Your task to perform on an android device: Open Maps and search for coffee Image 0: 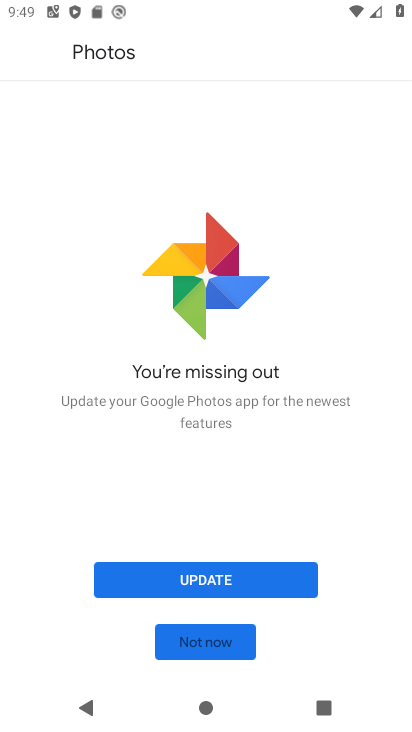
Step 0: press home button
Your task to perform on an android device: Open Maps and search for coffee Image 1: 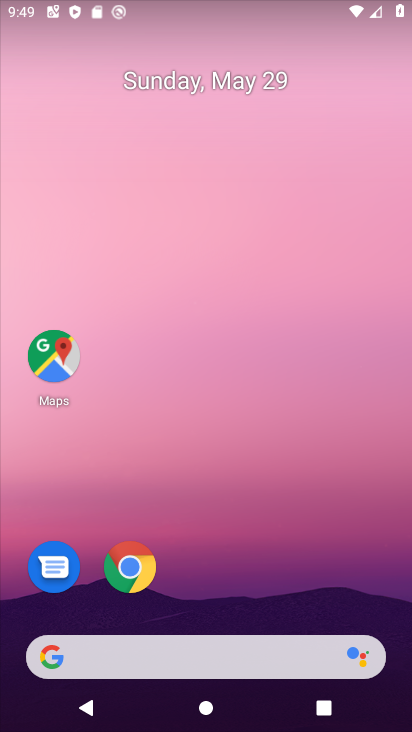
Step 1: drag from (385, 612) to (368, 532)
Your task to perform on an android device: Open Maps and search for coffee Image 2: 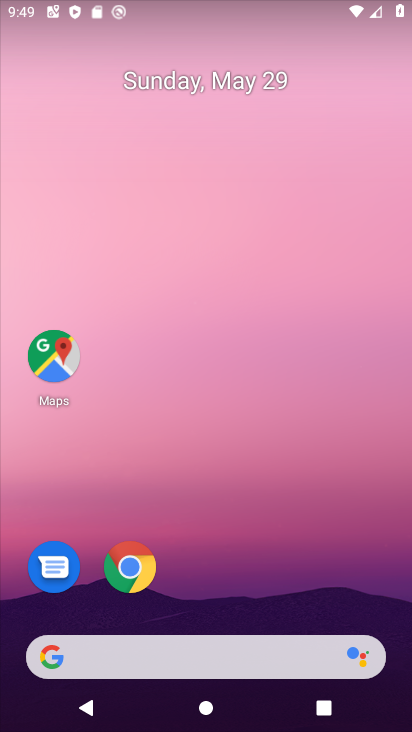
Step 2: click (58, 356)
Your task to perform on an android device: Open Maps and search for coffee Image 3: 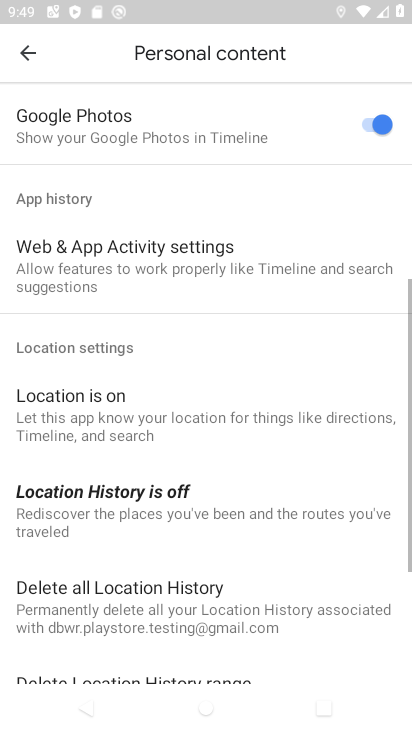
Step 3: press back button
Your task to perform on an android device: Open Maps and search for coffee Image 4: 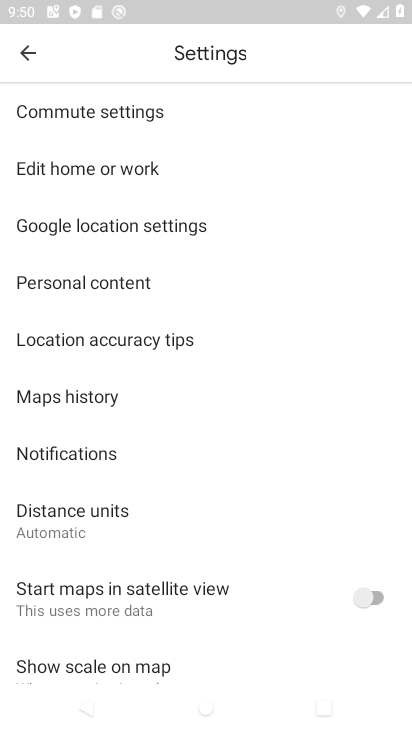
Step 4: press back button
Your task to perform on an android device: Open Maps and search for coffee Image 5: 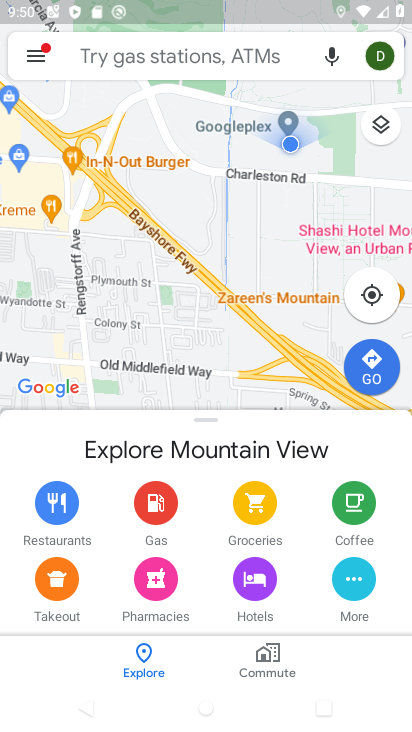
Step 5: click (136, 55)
Your task to perform on an android device: Open Maps and search for coffee Image 6: 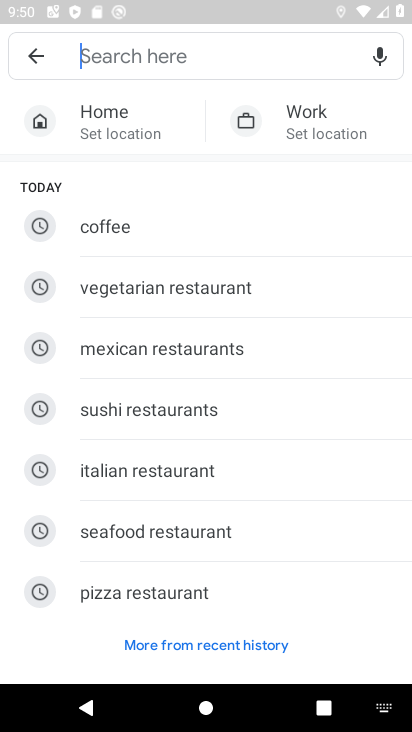
Step 6: type "coffee"
Your task to perform on an android device: Open Maps and search for coffee Image 7: 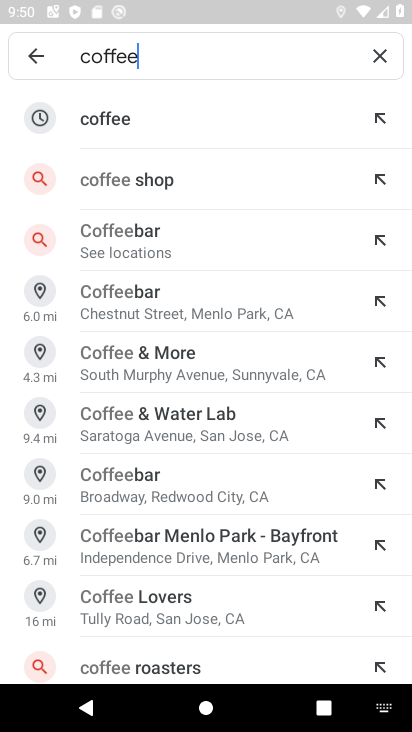
Step 7: click (104, 109)
Your task to perform on an android device: Open Maps and search for coffee Image 8: 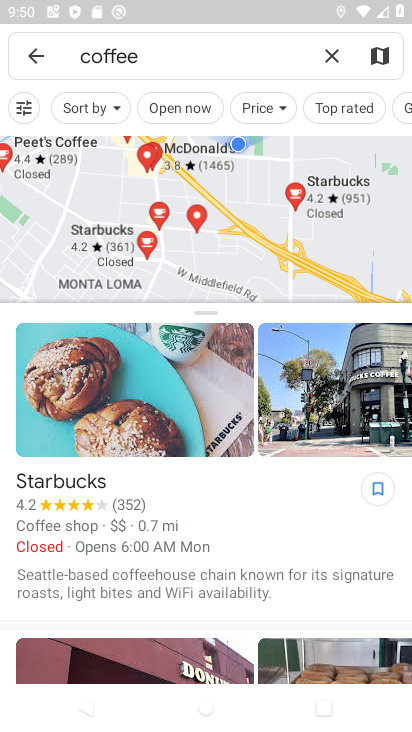
Step 8: task complete